Your task to perform on an android device: Open settings on Google Maps Image 0: 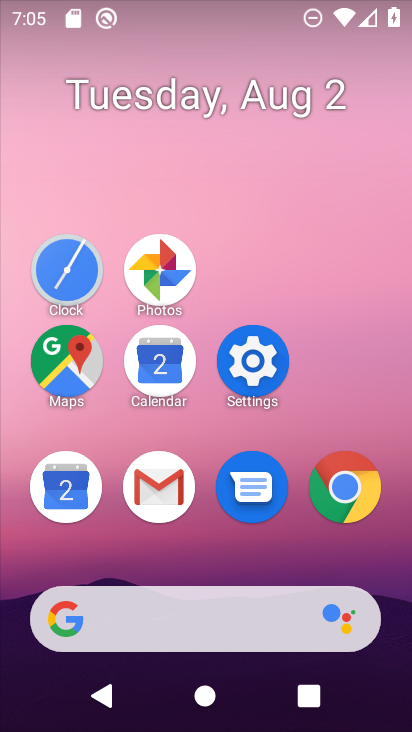
Step 0: click (74, 356)
Your task to perform on an android device: Open settings on Google Maps Image 1: 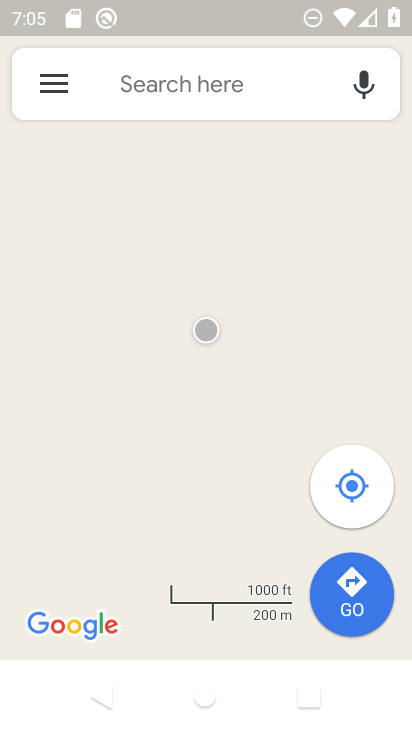
Step 1: click (50, 84)
Your task to perform on an android device: Open settings on Google Maps Image 2: 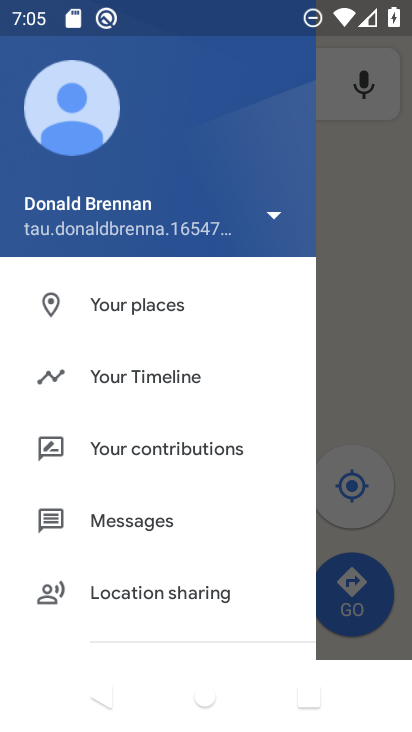
Step 2: drag from (155, 546) to (142, 196)
Your task to perform on an android device: Open settings on Google Maps Image 3: 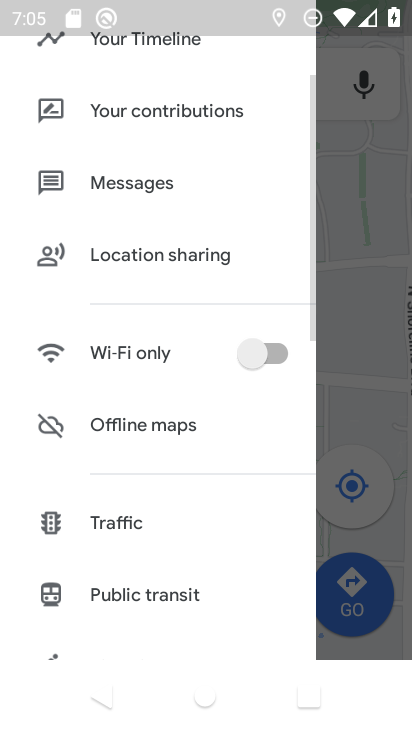
Step 3: drag from (186, 534) to (148, 70)
Your task to perform on an android device: Open settings on Google Maps Image 4: 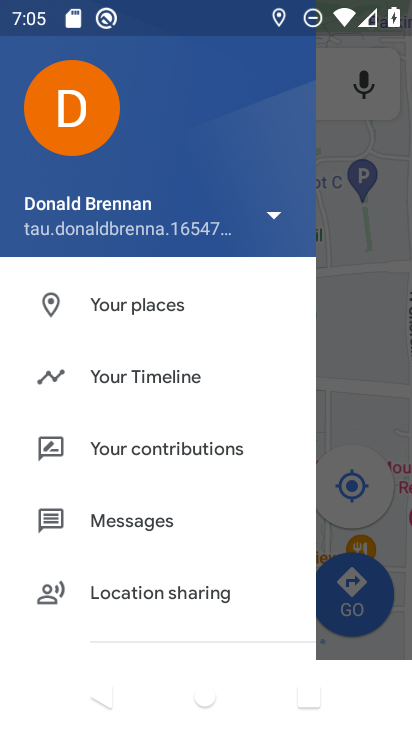
Step 4: drag from (198, 543) to (183, 193)
Your task to perform on an android device: Open settings on Google Maps Image 5: 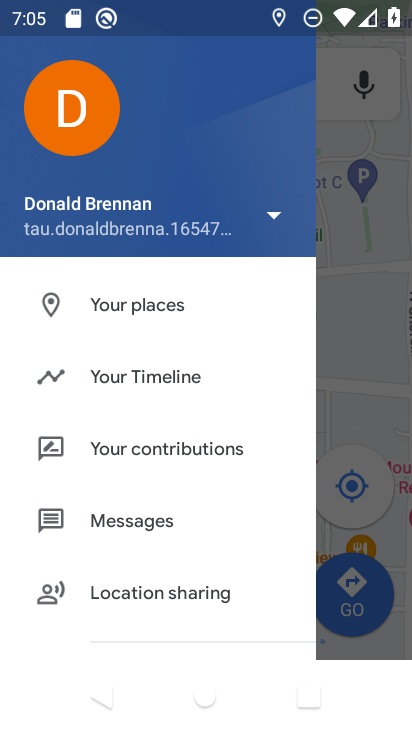
Step 5: drag from (149, 561) to (123, 197)
Your task to perform on an android device: Open settings on Google Maps Image 6: 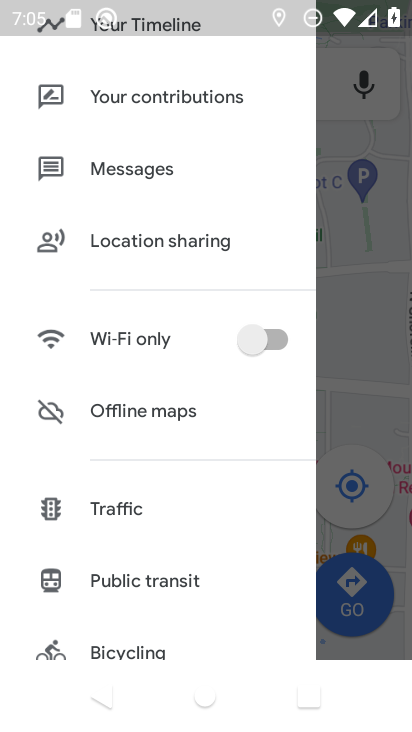
Step 6: drag from (136, 612) to (132, 160)
Your task to perform on an android device: Open settings on Google Maps Image 7: 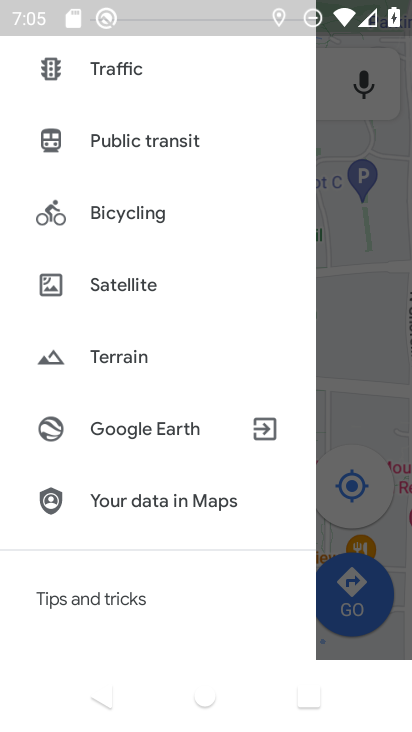
Step 7: drag from (128, 522) to (120, 96)
Your task to perform on an android device: Open settings on Google Maps Image 8: 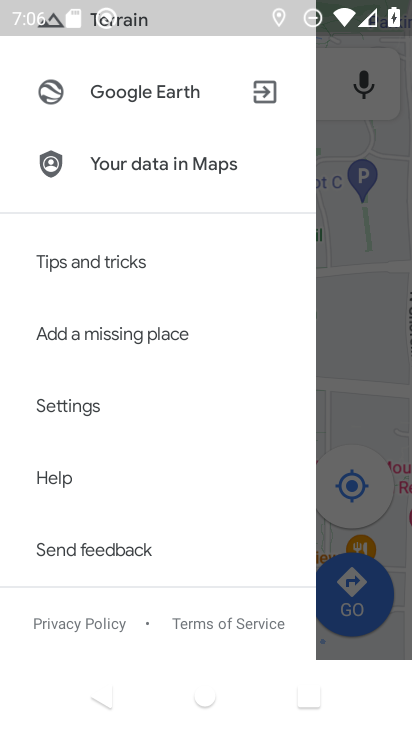
Step 8: click (72, 405)
Your task to perform on an android device: Open settings on Google Maps Image 9: 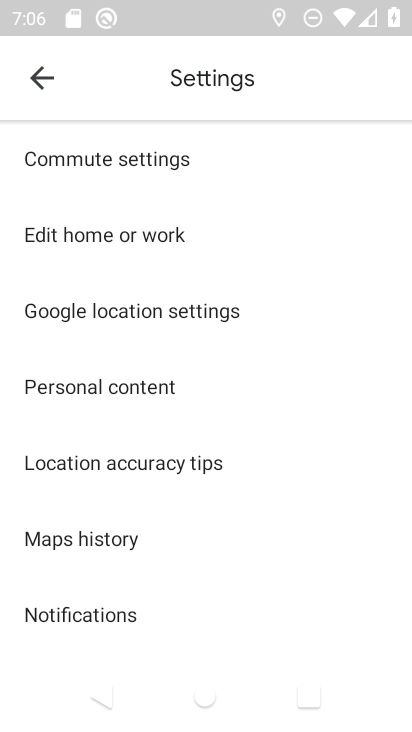
Step 9: click (72, 405)
Your task to perform on an android device: Open settings on Google Maps Image 10: 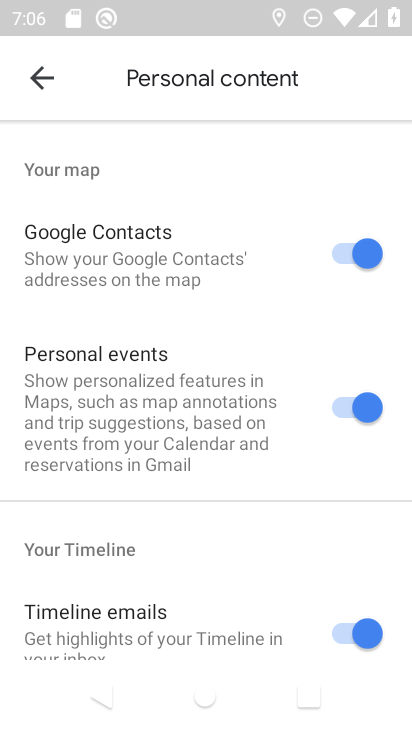
Step 10: task complete